Your task to perform on an android device: turn on notifications settings in the gmail app Image 0: 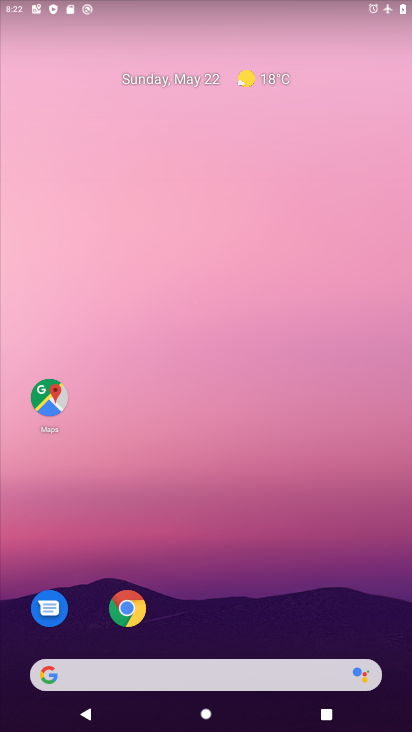
Step 0: drag from (222, 722) to (233, 111)
Your task to perform on an android device: turn on notifications settings in the gmail app Image 1: 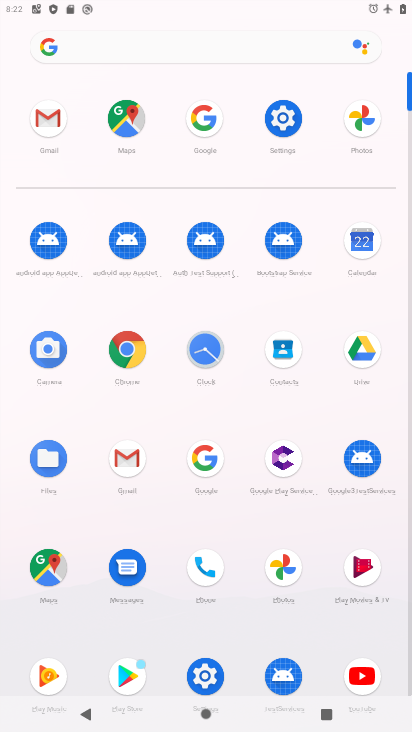
Step 1: click (127, 462)
Your task to perform on an android device: turn on notifications settings in the gmail app Image 2: 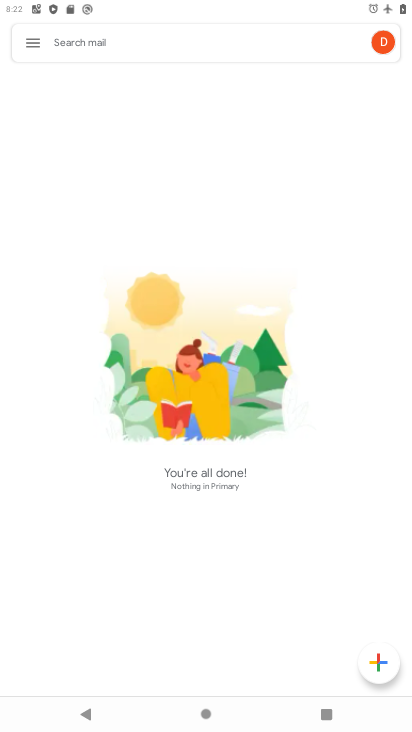
Step 2: click (37, 45)
Your task to perform on an android device: turn on notifications settings in the gmail app Image 3: 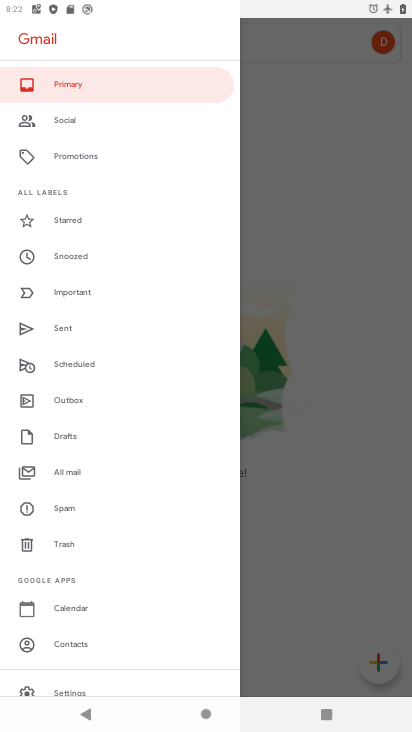
Step 3: drag from (71, 672) to (96, 364)
Your task to perform on an android device: turn on notifications settings in the gmail app Image 4: 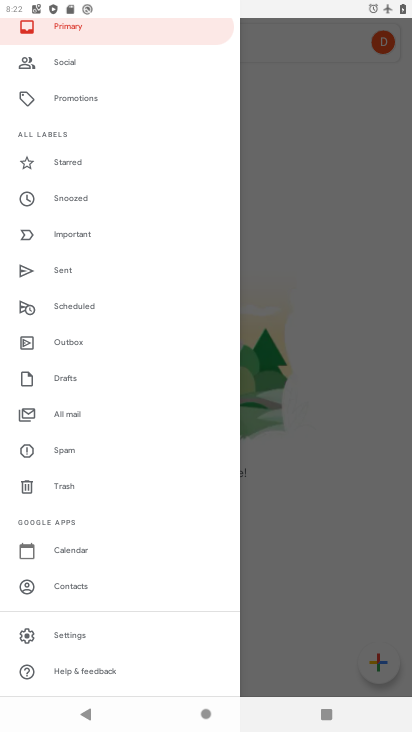
Step 4: click (63, 633)
Your task to perform on an android device: turn on notifications settings in the gmail app Image 5: 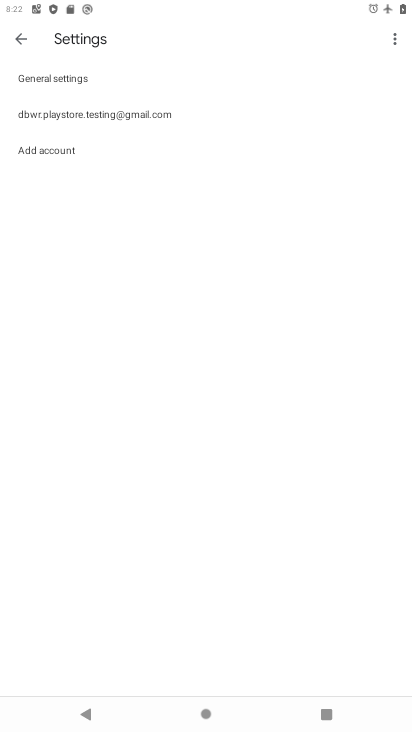
Step 5: click (91, 109)
Your task to perform on an android device: turn on notifications settings in the gmail app Image 6: 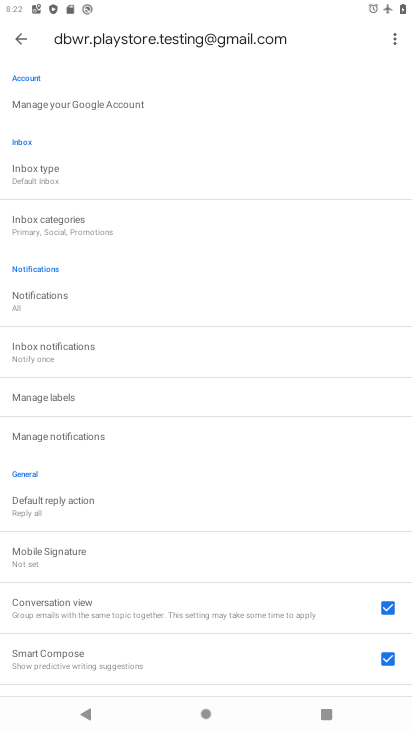
Step 6: click (46, 297)
Your task to perform on an android device: turn on notifications settings in the gmail app Image 7: 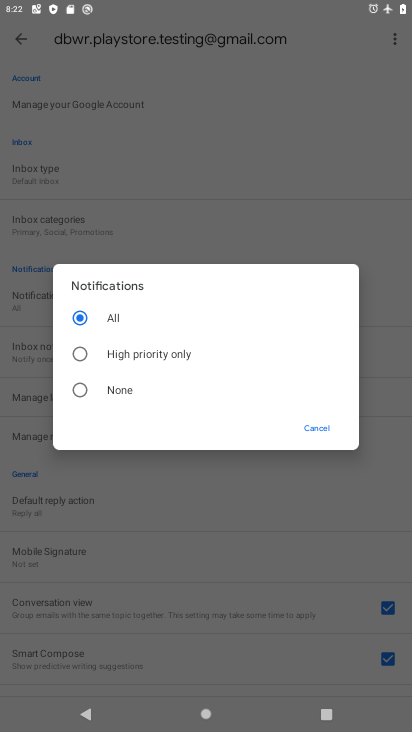
Step 7: click (309, 428)
Your task to perform on an android device: turn on notifications settings in the gmail app Image 8: 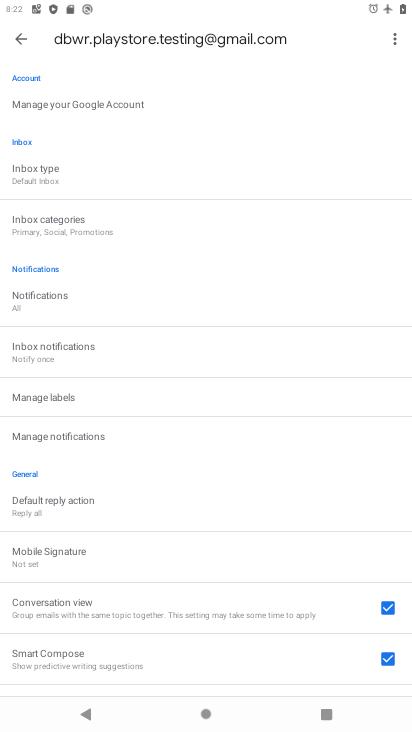
Step 8: task complete